Your task to perform on an android device: find snoozed emails in the gmail app Image 0: 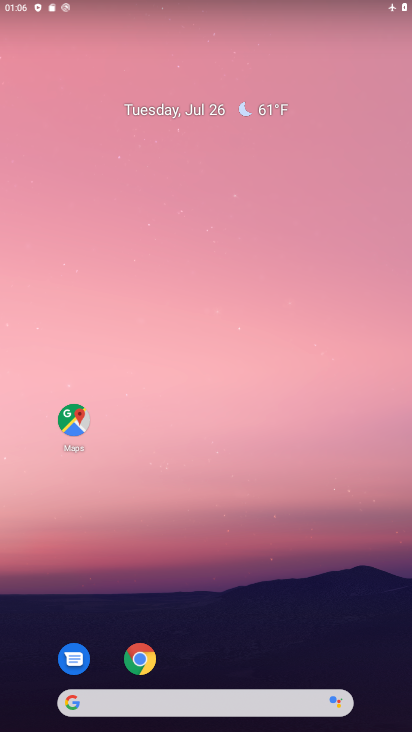
Step 0: drag from (236, 586) to (220, 86)
Your task to perform on an android device: find snoozed emails in the gmail app Image 1: 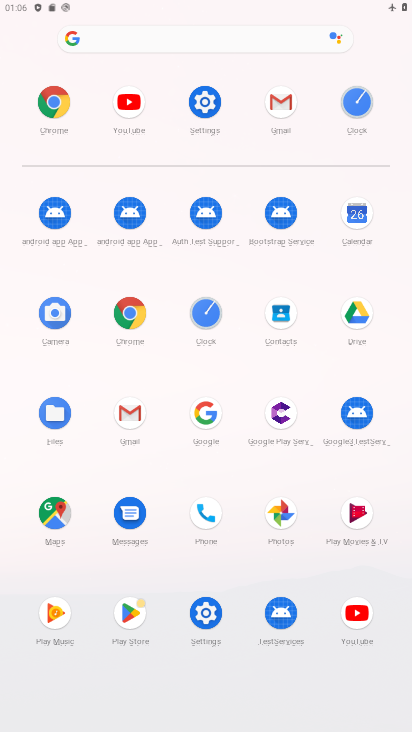
Step 1: click (127, 412)
Your task to perform on an android device: find snoozed emails in the gmail app Image 2: 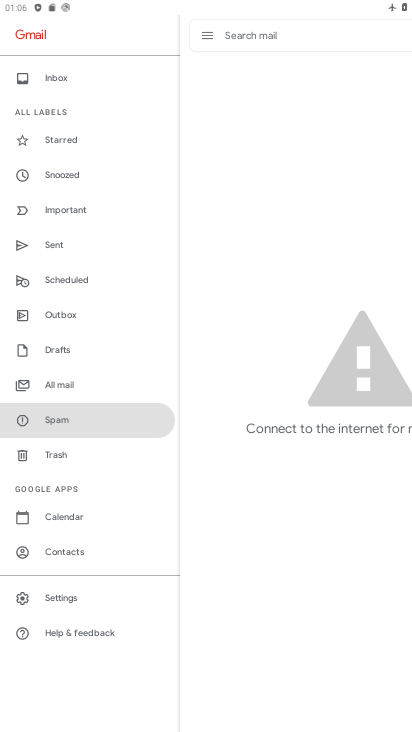
Step 2: click (62, 180)
Your task to perform on an android device: find snoozed emails in the gmail app Image 3: 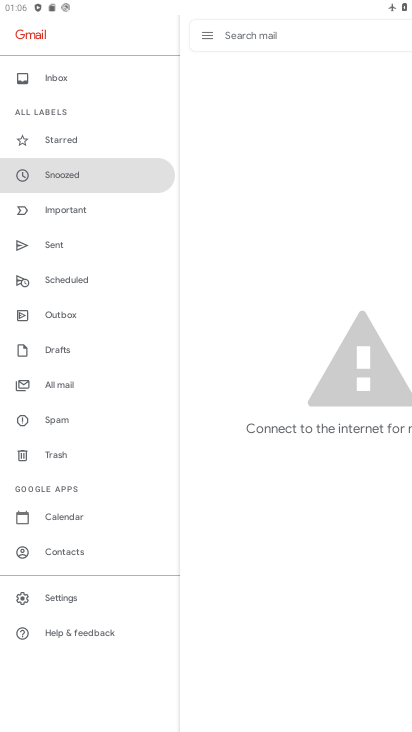
Step 3: task complete